Your task to perform on an android device: Open Chrome and go to the settings page Image 0: 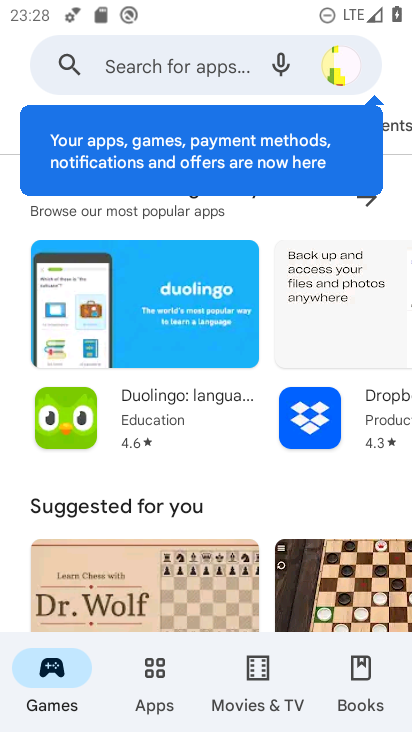
Step 0: press home button
Your task to perform on an android device: Open Chrome and go to the settings page Image 1: 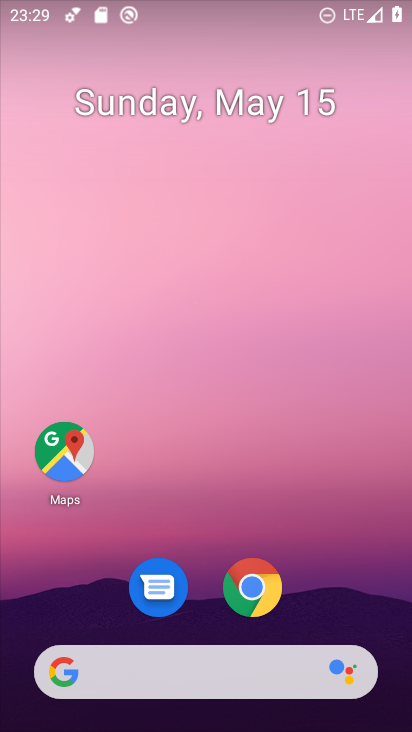
Step 1: click (262, 576)
Your task to perform on an android device: Open Chrome and go to the settings page Image 2: 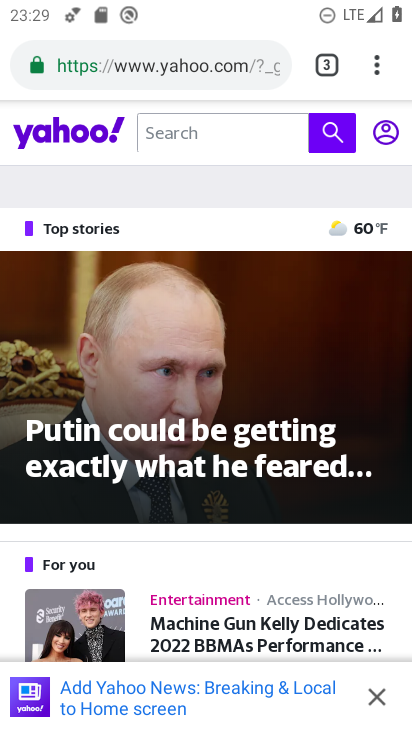
Step 2: task complete